Your task to perform on an android device: Show me recent news Image 0: 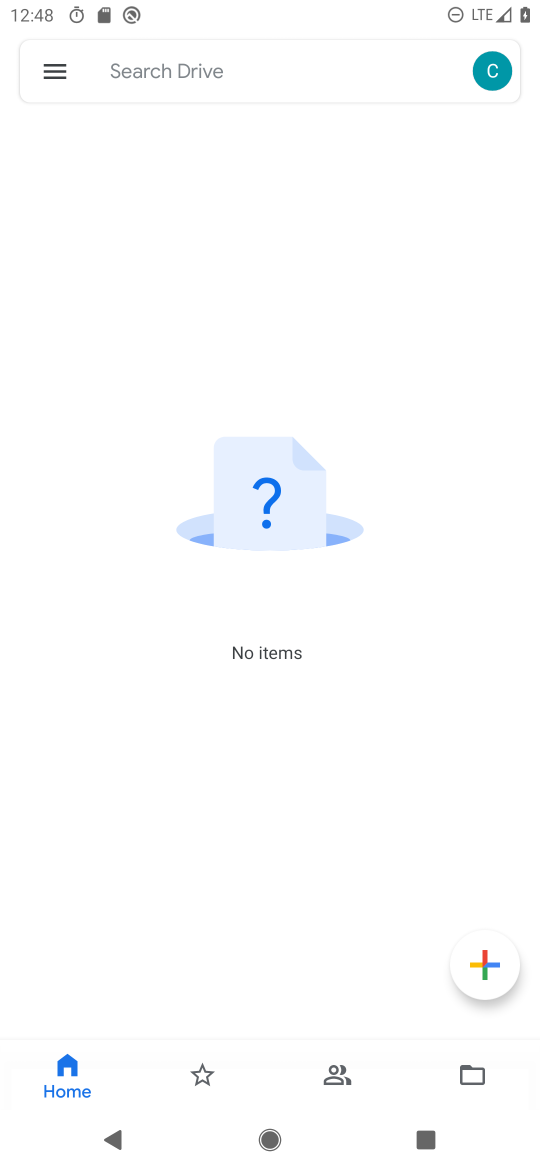
Step 0: press home button
Your task to perform on an android device: Show me recent news Image 1: 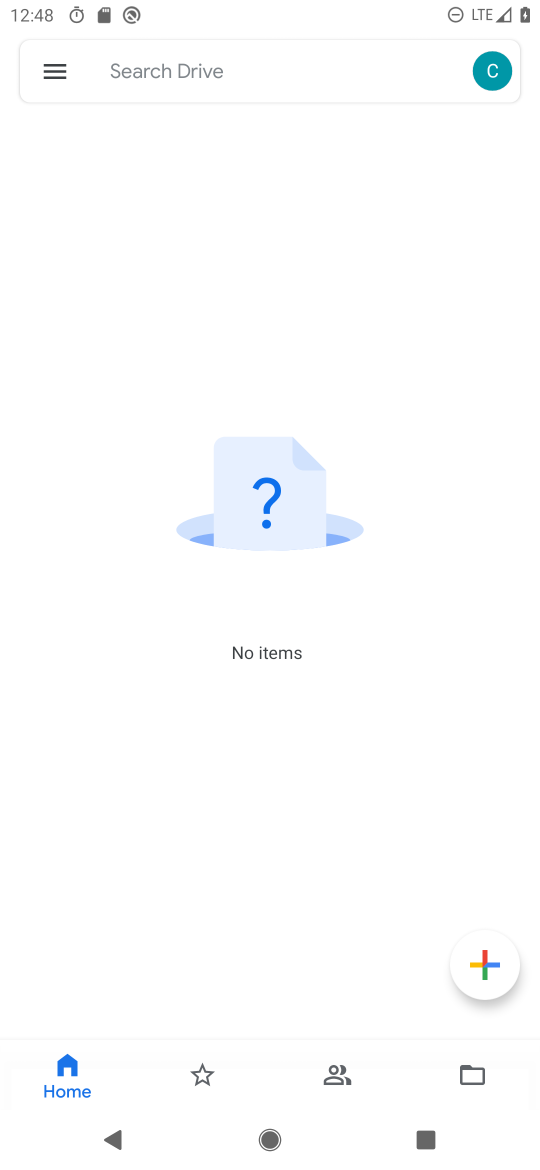
Step 1: press home button
Your task to perform on an android device: Show me recent news Image 2: 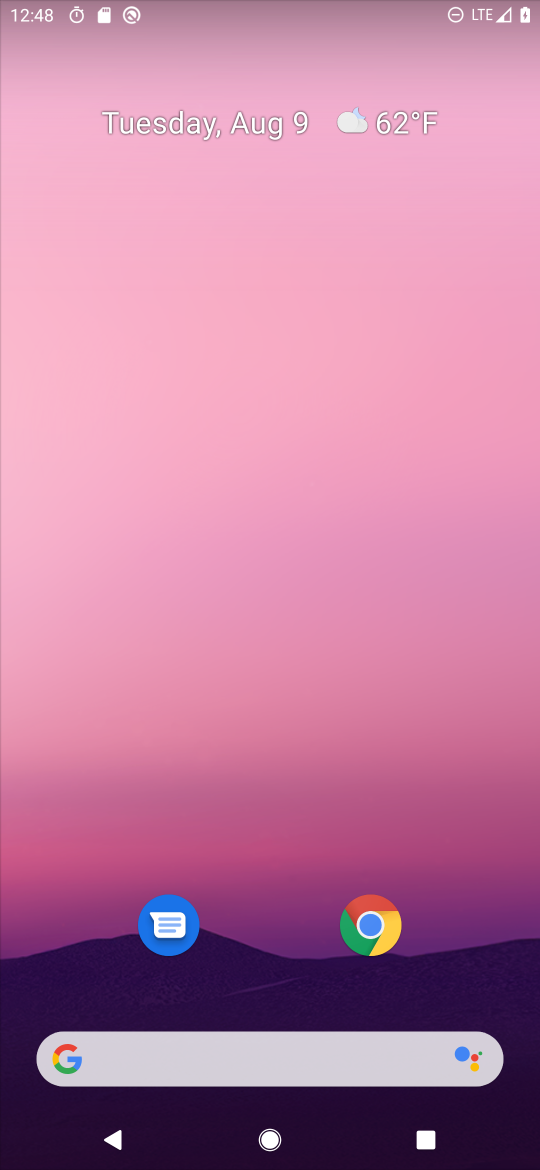
Step 2: drag from (322, 777) to (374, 76)
Your task to perform on an android device: Show me recent news Image 3: 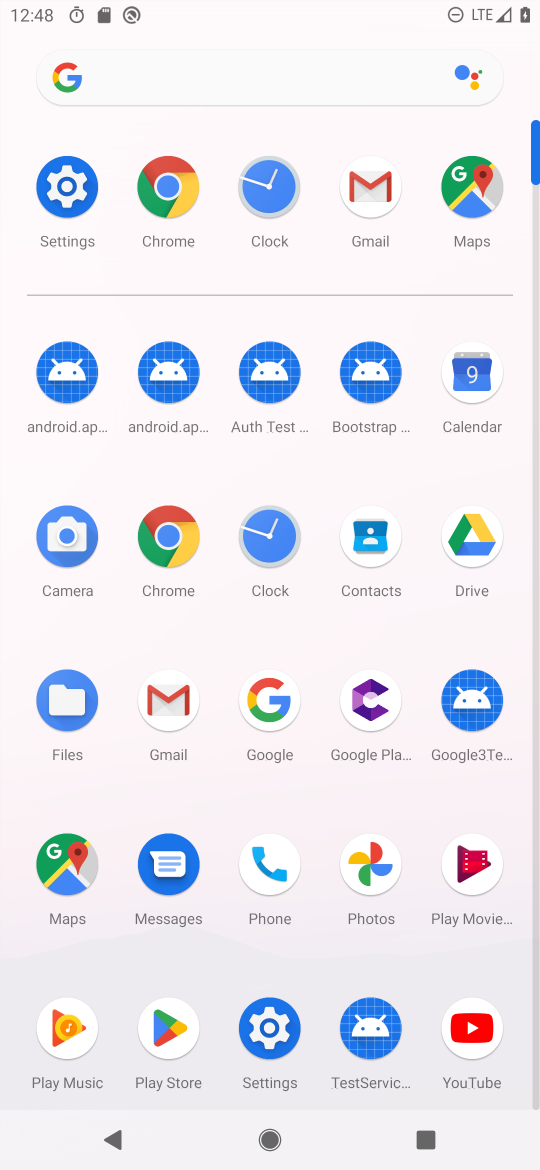
Step 3: click (163, 521)
Your task to perform on an android device: Show me recent news Image 4: 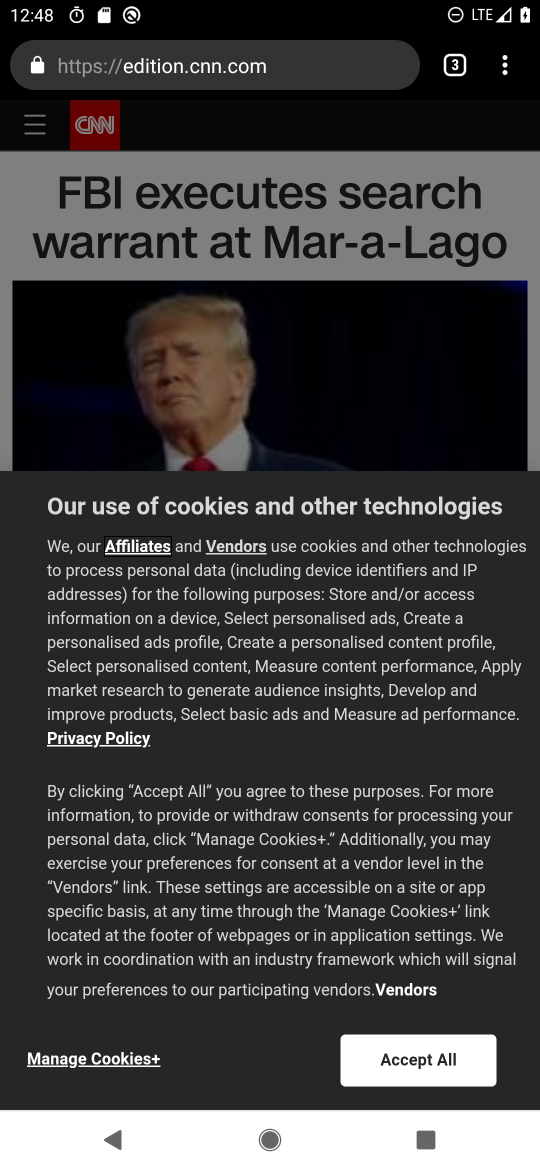
Step 4: click (387, 57)
Your task to perform on an android device: Show me recent news Image 5: 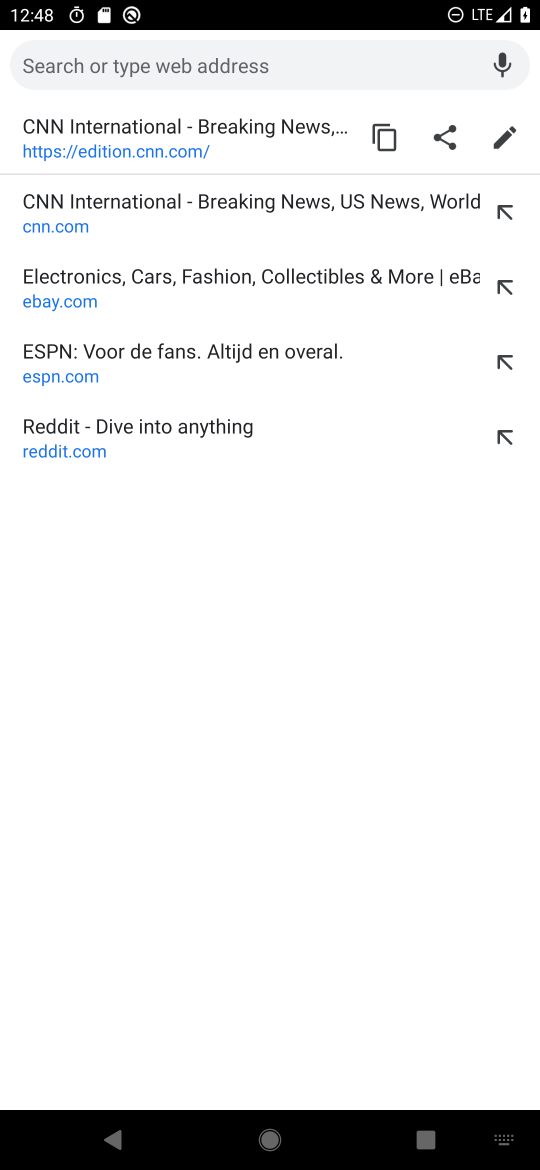
Step 5: type "news"
Your task to perform on an android device: Show me recent news Image 6: 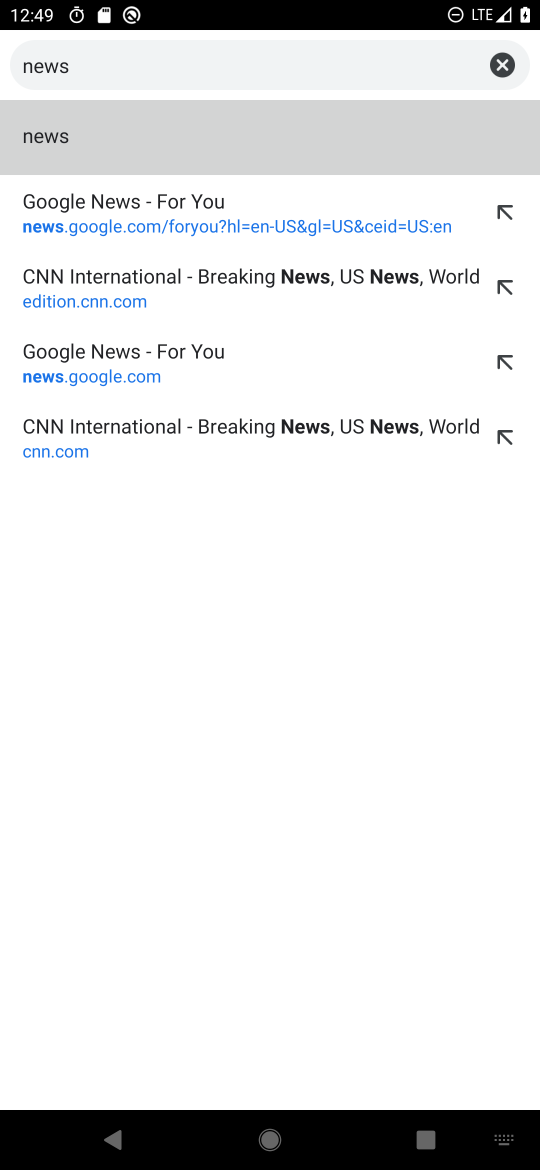
Step 6: click (26, 140)
Your task to perform on an android device: Show me recent news Image 7: 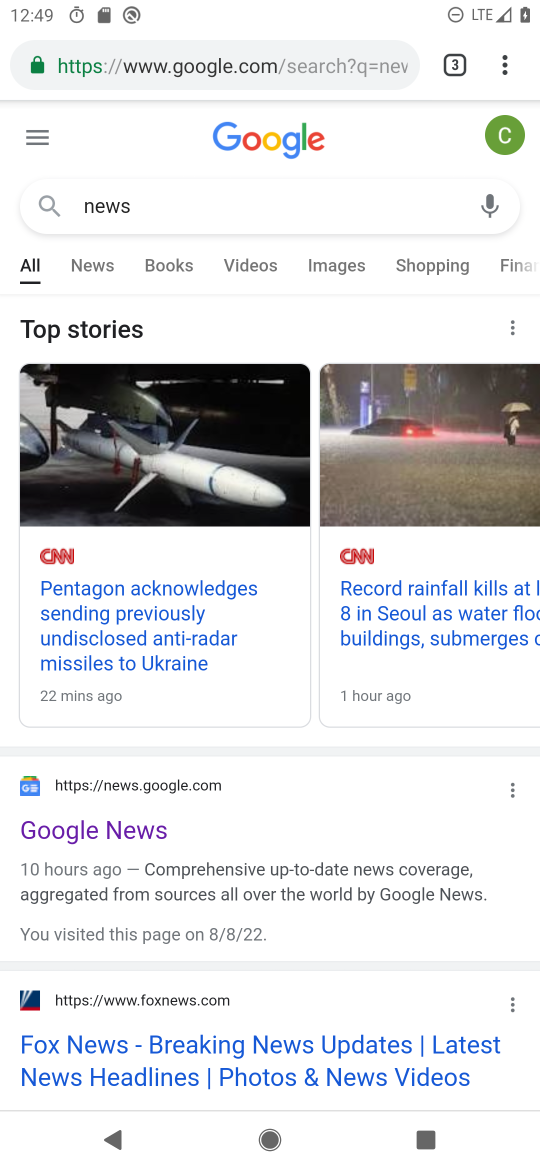
Step 7: click (154, 828)
Your task to perform on an android device: Show me recent news Image 8: 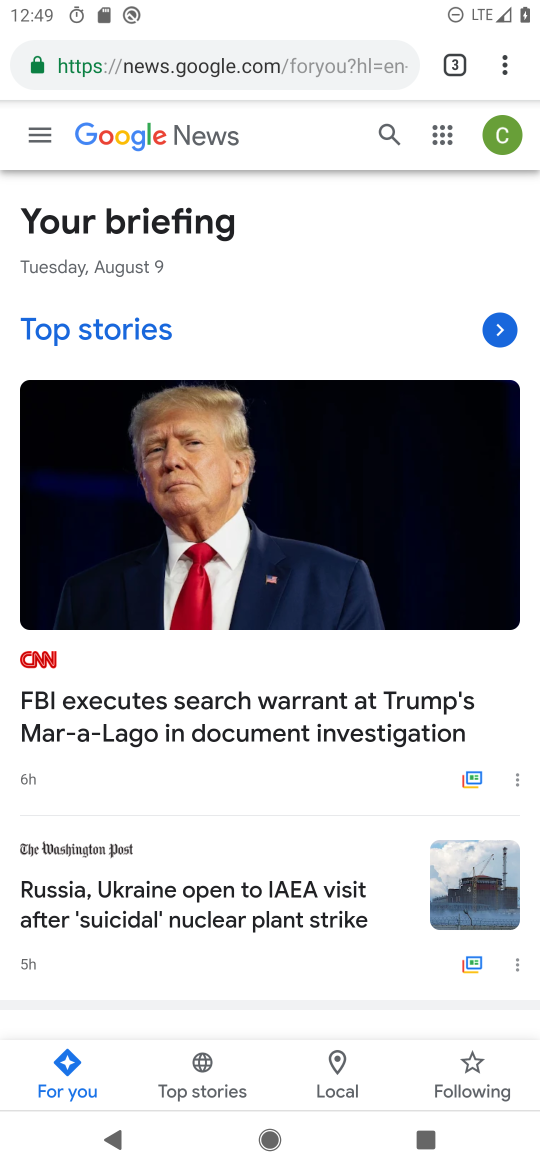
Step 8: task complete